Your task to perform on an android device: Look up the top rated headphones on Amazon. Image 0: 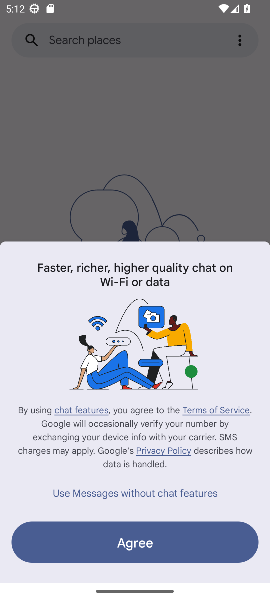
Step 0: press home button
Your task to perform on an android device: Look up the top rated headphones on Amazon. Image 1: 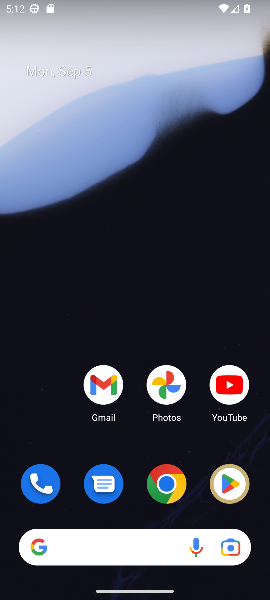
Step 1: click (265, 446)
Your task to perform on an android device: Look up the top rated headphones on Amazon. Image 2: 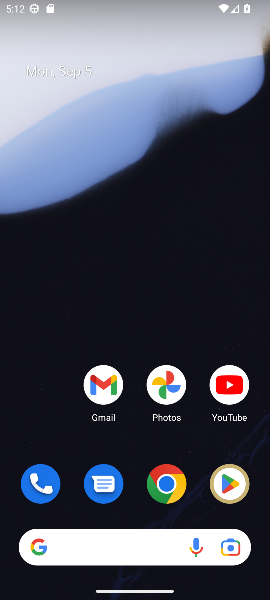
Step 2: click (171, 479)
Your task to perform on an android device: Look up the top rated headphones on Amazon. Image 3: 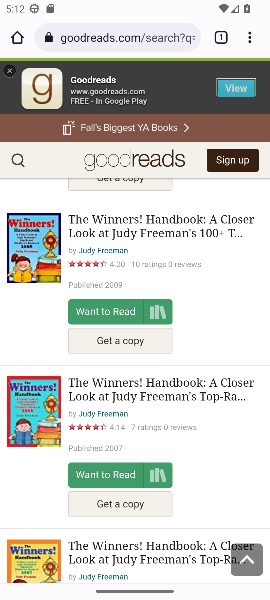
Step 3: click (146, 36)
Your task to perform on an android device: Look up the top rated headphones on Amazon. Image 4: 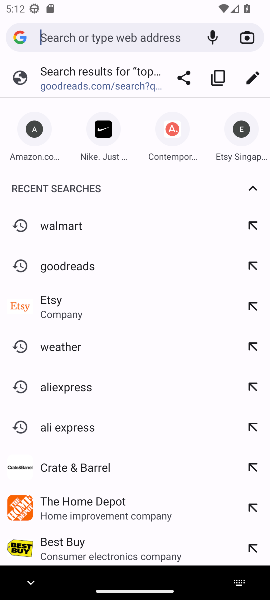
Step 4: type "Amazon"
Your task to perform on an android device: Look up the top rated headphones on Amazon. Image 5: 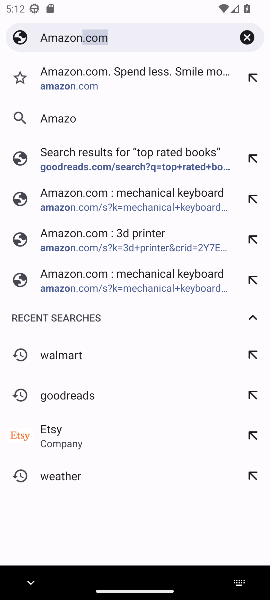
Step 5: press enter
Your task to perform on an android device: Look up the top rated headphones on Amazon. Image 6: 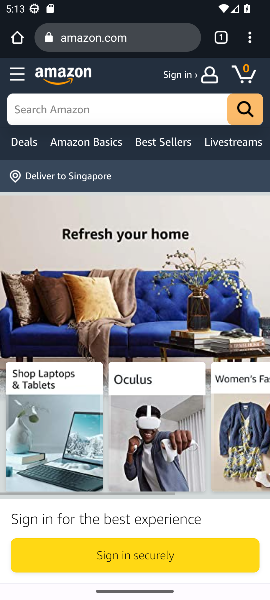
Step 6: click (102, 100)
Your task to perform on an android device: Look up the top rated headphones on Amazon. Image 7: 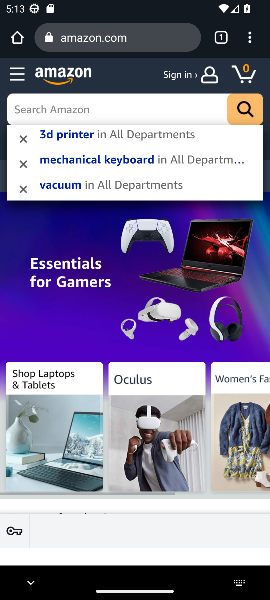
Step 7: type "headphones"
Your task to perform on an android device: Look up the top rated headphones on Amazon. Image 8: 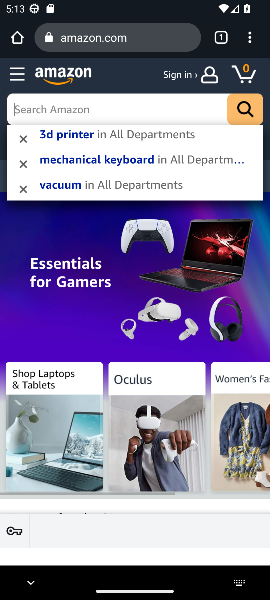
Step 8: press enter
Your task to perform on an android device: Look up the top rated headphones on Amazon. Image 9: 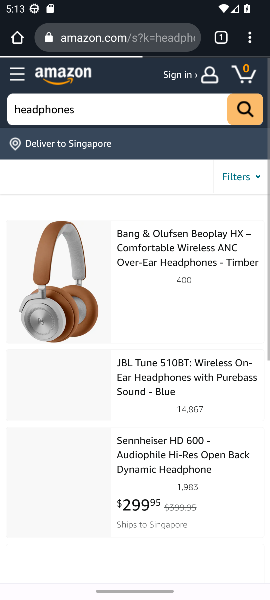
Step 9: click (247, 102)
Your task to perform on an android device: Look up the top rated headphones on Amazon. Image 10: 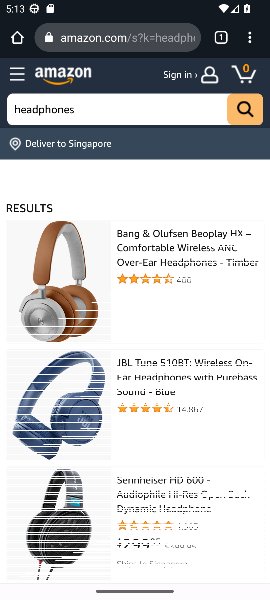
Step 10: task complete